Your task to perform on an android device: add a contact in the contacts app Image 0: 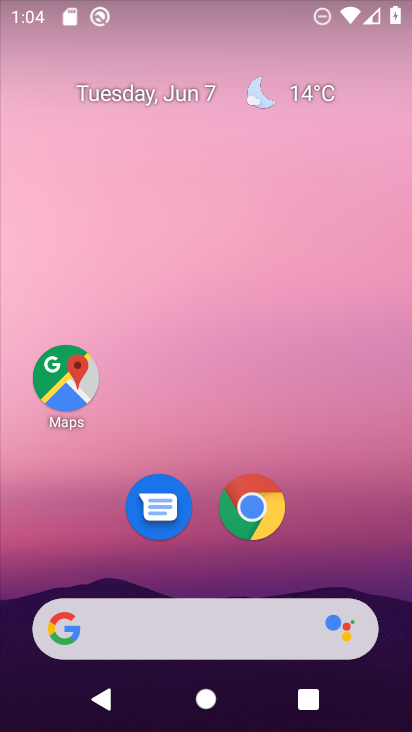
Step 0: drag from (310, 519) to (311, 24)
Your task to perform on an android device: add a contact in the contacts app Image 1: 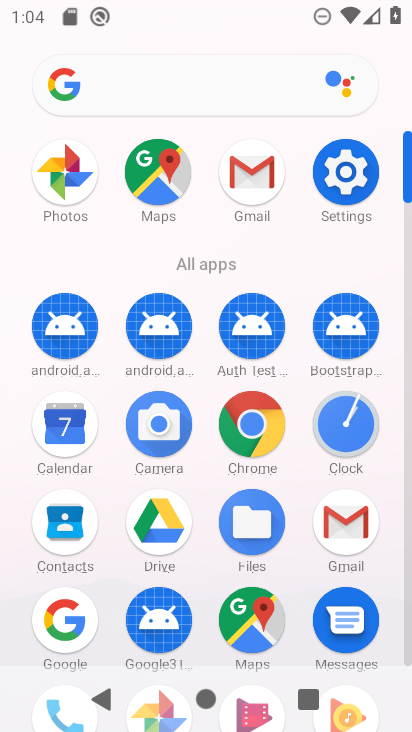
Step 1: click (66, 517)
Your task to perform on an android device: add a contact in the contacts app Image 2: 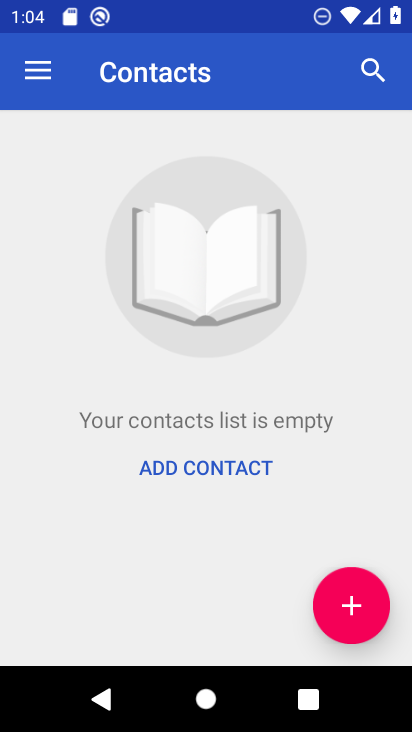
Step 2: click (344, 603)
Your task to perform on an android device: add a contact in the contacts app Image 3: 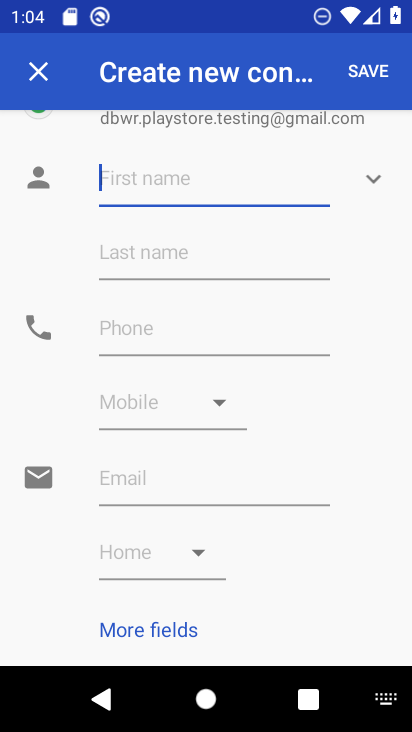
Step 3: type "uyehd"
Your task to perform on an android device: add a contact in the contacts app Image 4: 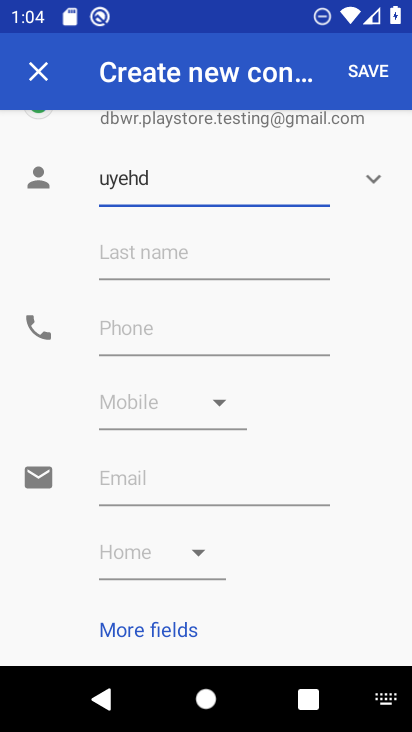
Step 4: click (139, 334)
Your task to perform on an android device: add a contact in the contacts app Image 5: 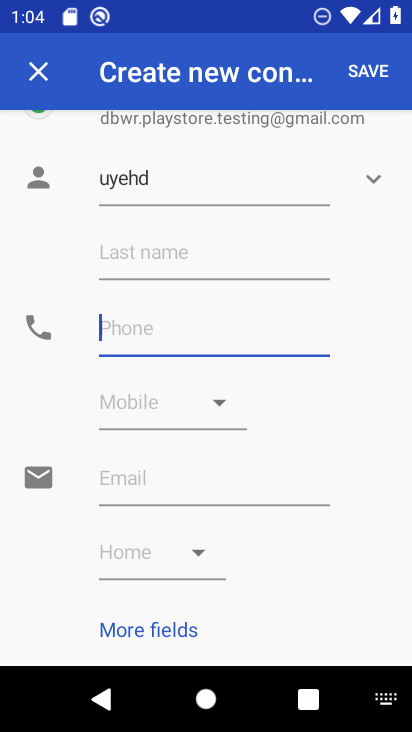
Step 5: type "567890432"
Your task to perform on an android device: add a contact in the contacts app Image 6: 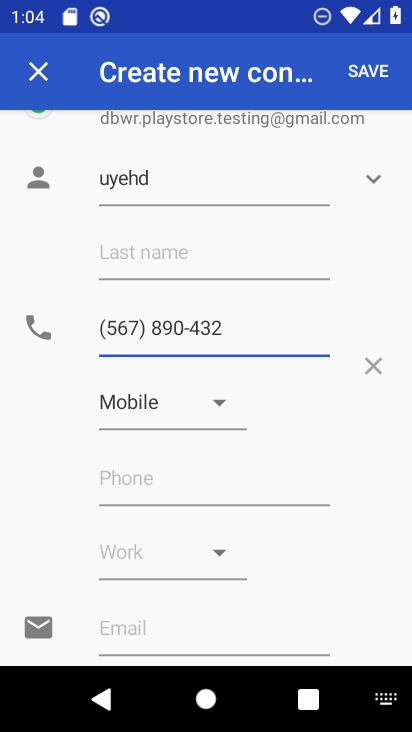
Step 6: click (371, 71)
Your task to perform on an android device: add a contact in the contacts app Image 7: 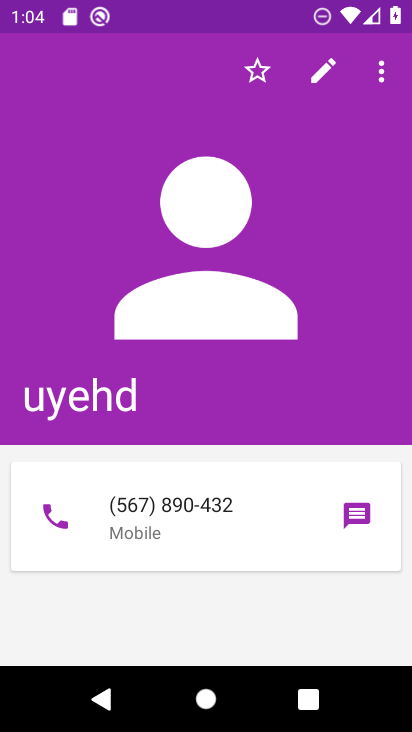
Step 7: task complete